Your task to perform on an android device: Go to settings Image 0: 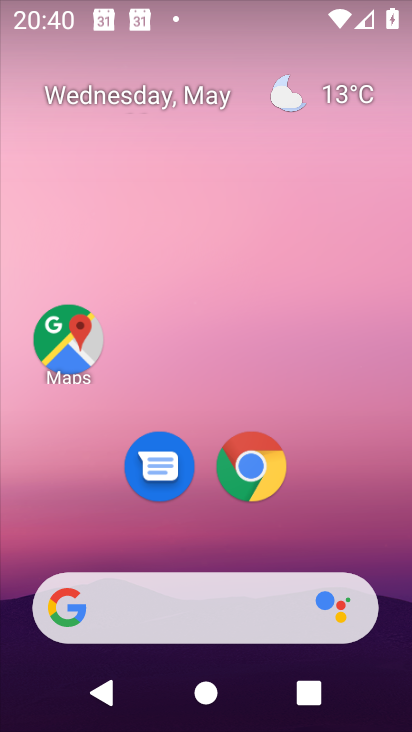
Step 0: press home button
Your task to perform on an android device: Go to settings Image 1: 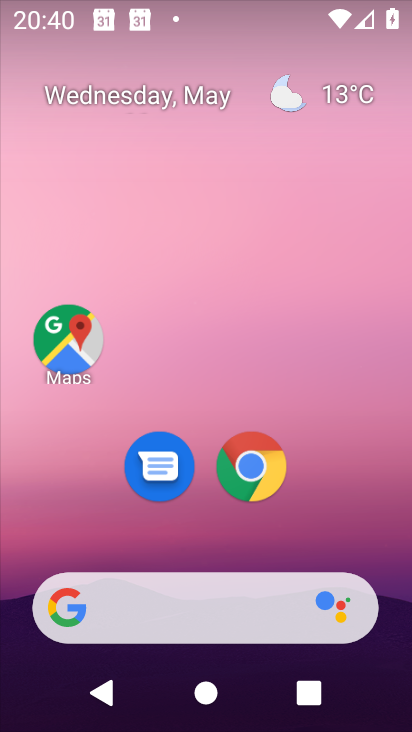
Step 1: drag from (203, 539) to (240, 100)
Your task to perform on an android device: Go to settings Image 2: 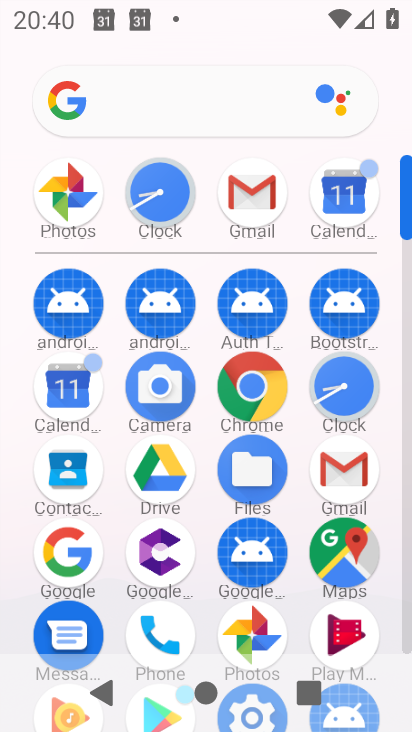
Step 2: drag from (202, 521) to (212, 180)
Your task to perform on an android device: Go to settings Image 3: 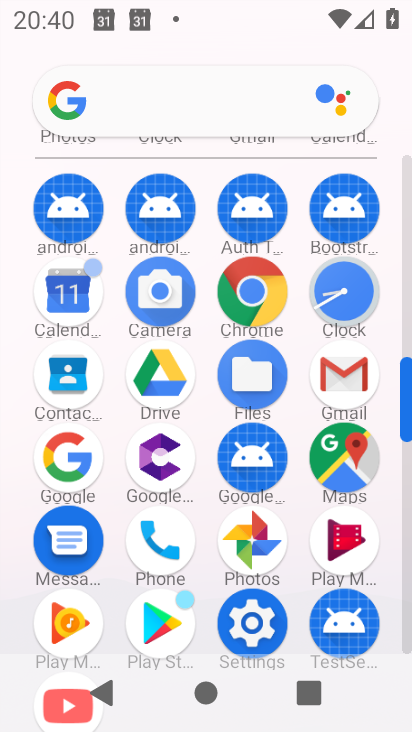
Step 3: click (254, 613)
Your task to perform on an android device: Go to settings Image 4: 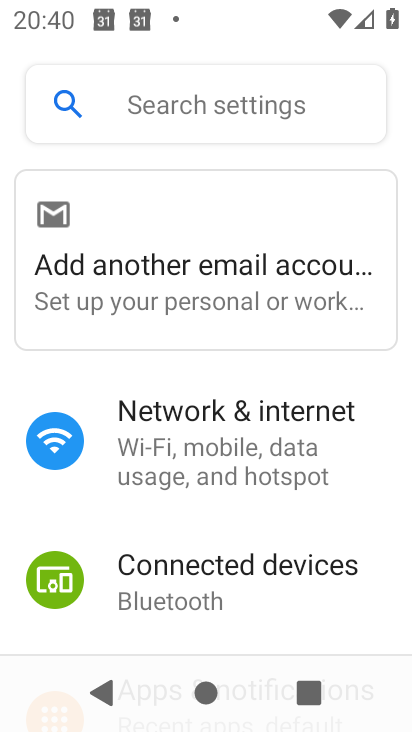
Step 4: task complete